Your task to perform on an android device: toggle pop-ups in chrome Image 0: 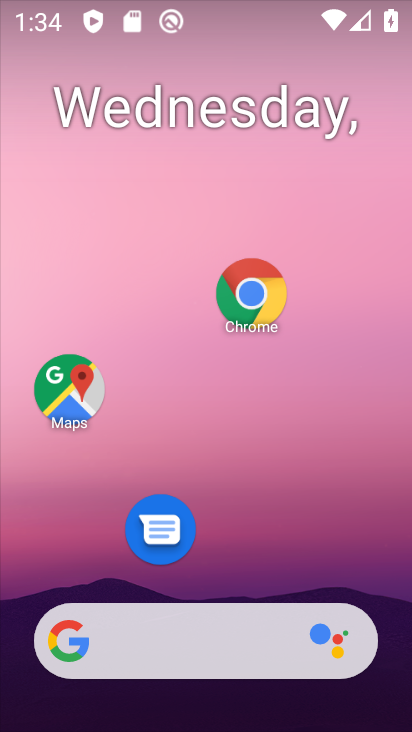
Step 0: click (276, 273)
Your task to perform on an android device: toggle pop-ups in chrome Image 1: 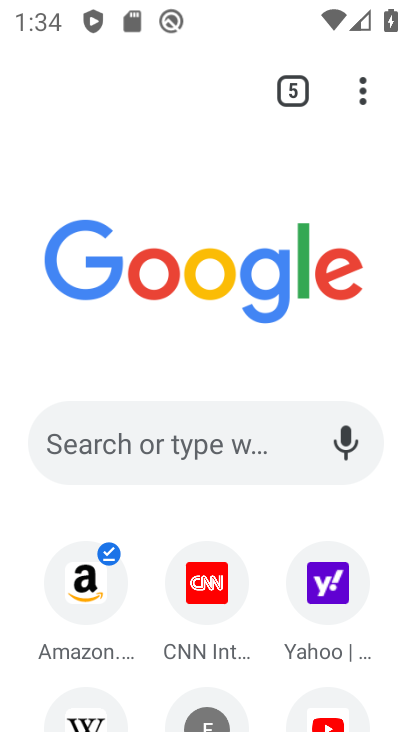
Step 1: click (361, 110)
Your task to perform on an android device: toggle pop-ups in chrome Image 2: 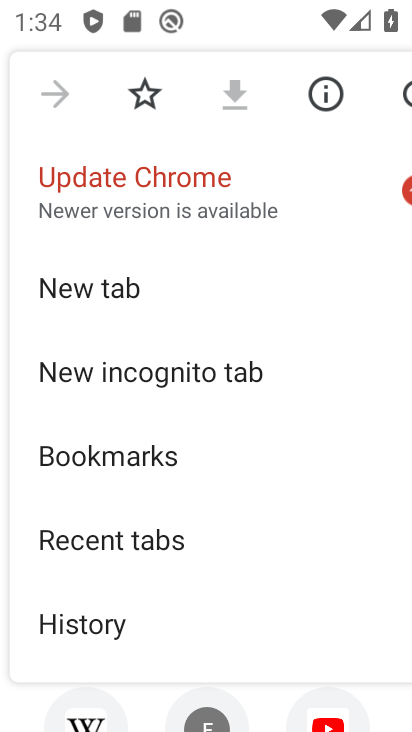
Step 2: drag from (197, 483) to (199, 206)
Your task to perform on an android device: toggle pop-ups in chrome Image 3: 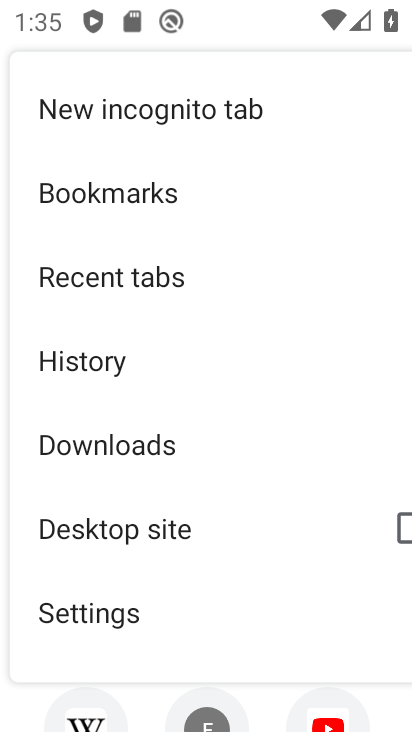
Step 3: click (168, 622)
Your task to perform on an android device: toggle pop-ups in chrome Image 4: 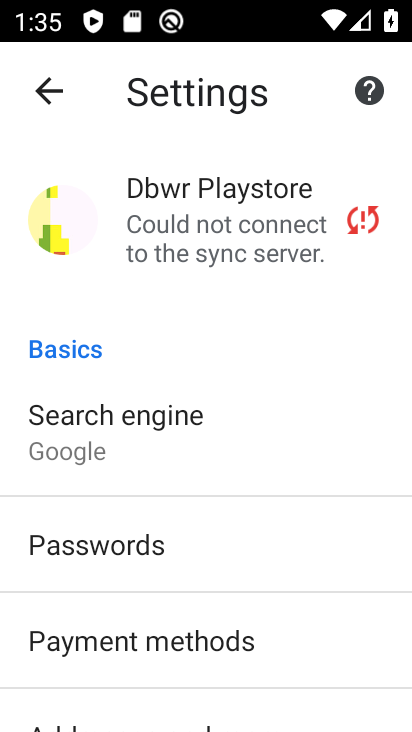
Step 4: drag from (170, 587) to (172, 233)
Your task to perform on an android device: toggle pop-ups in chrome Image 5: 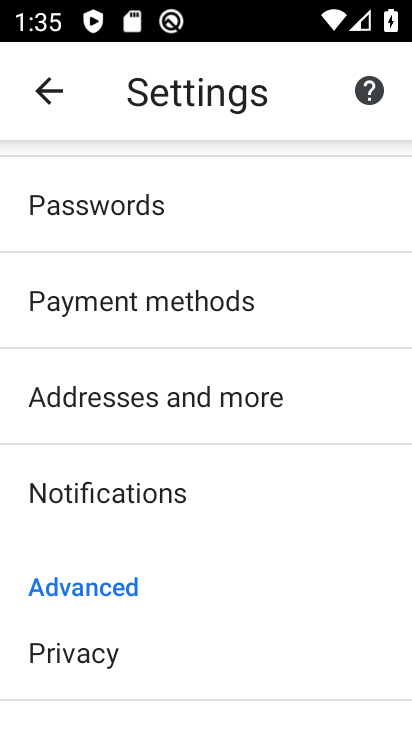
Step 5: drag from (136, 638) to (161, 264)
Your task to perform on an android device: toggle pop-ups in chrome Image 6: 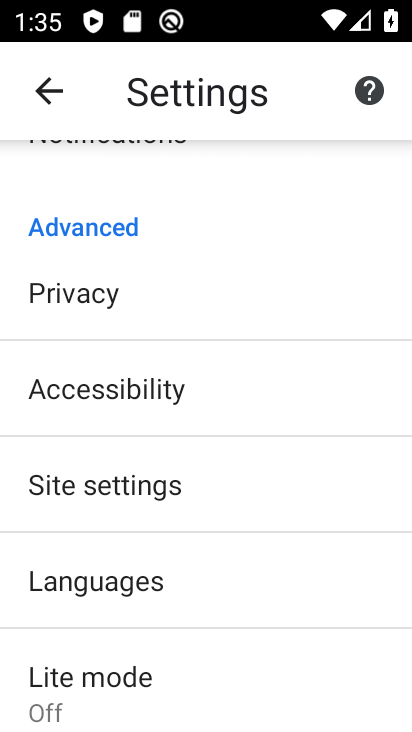
Step 6: click (151, 484)
Your task to perform on an android device: toggle pop-ups in chrome Image 7: 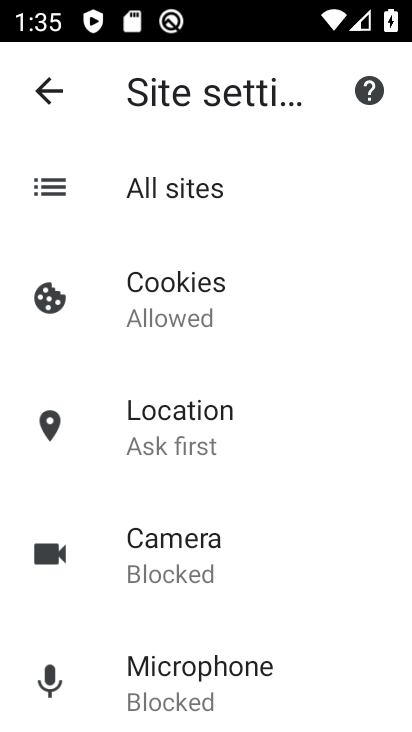
Step 7: drag from (192, 546) to (195, 227)
Your task to perform on an android device: toggle pop-ups in chrome Image 8: 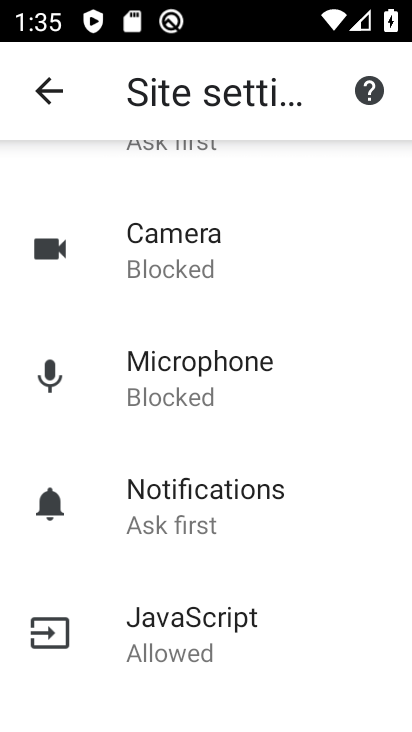
Step 8: drag from (230, 483) to (230, 296)
Your task to perform on an android device: toggle pop-ups in chrome Image 9: 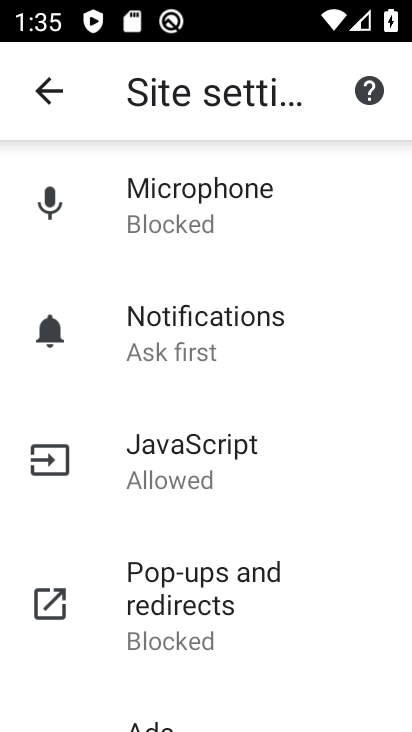
Step 9: click (252, 584)
Your task to perform on an android device: toggle pop-ups in chrome Image 10: 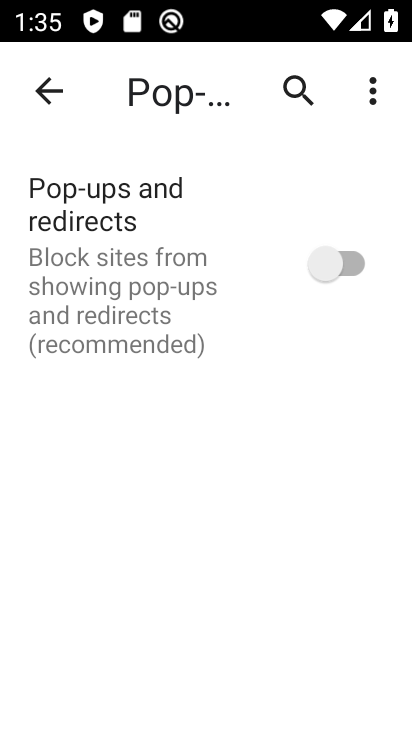
Step 10: click (350, 269)
Your task to perform on an android device: toggle pop-ups in chrome Image 11: 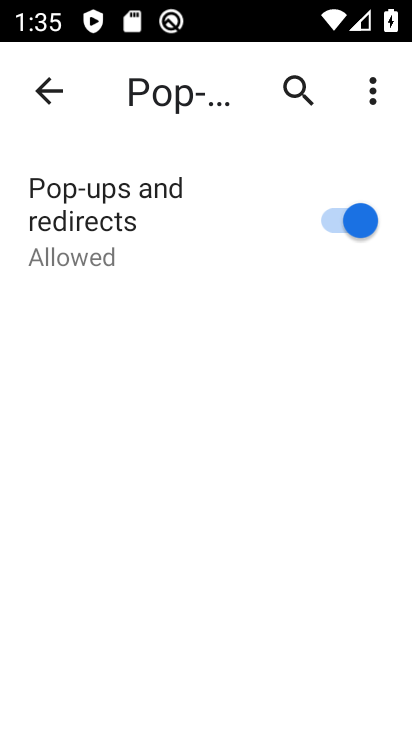
Step 11: task complete